Your task to perform on an android device: open app "Walmart Shopping & Grocery" (install if not already installed) Image 0: 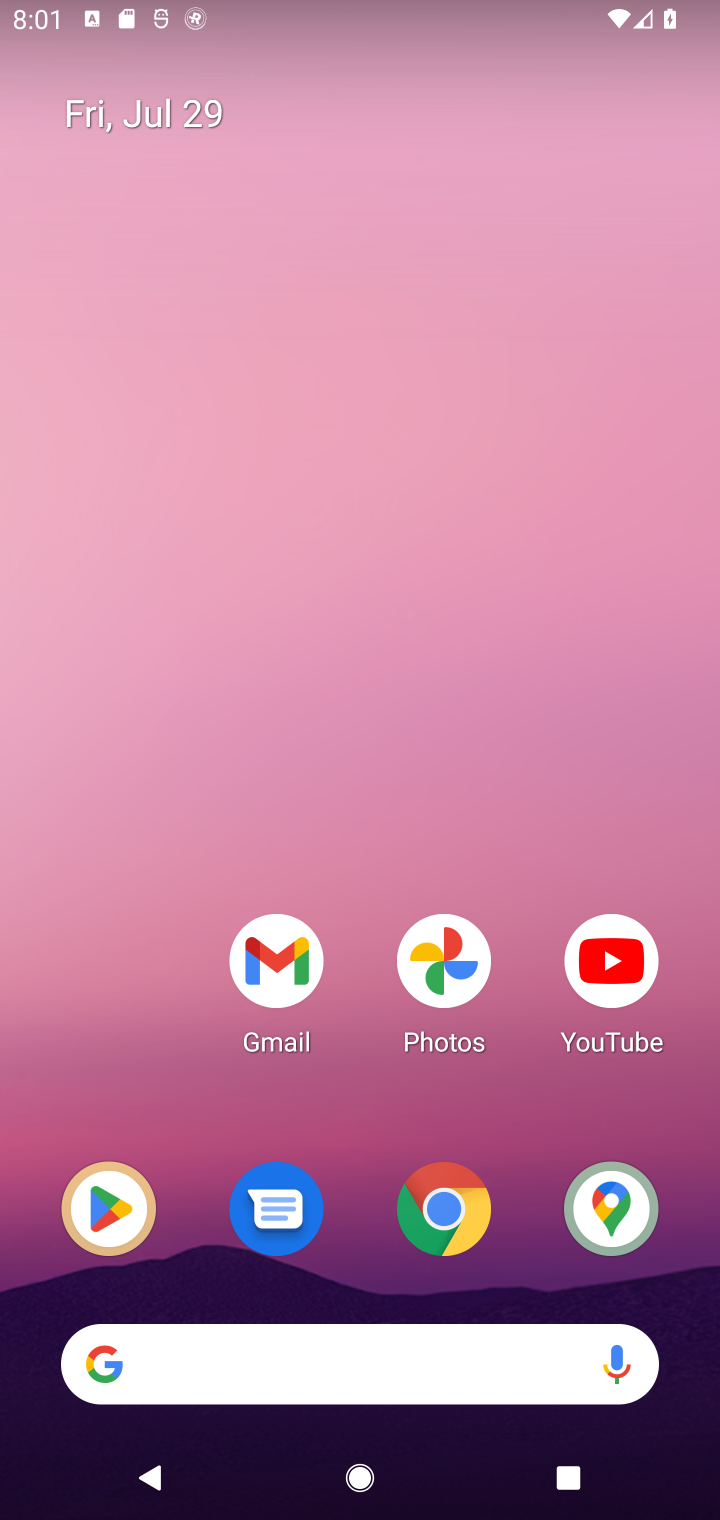
Step 0: press home button
Your task to perform on an android device: open app "Walmart Shopping & Grocery" (install if not already installed) Image 1: 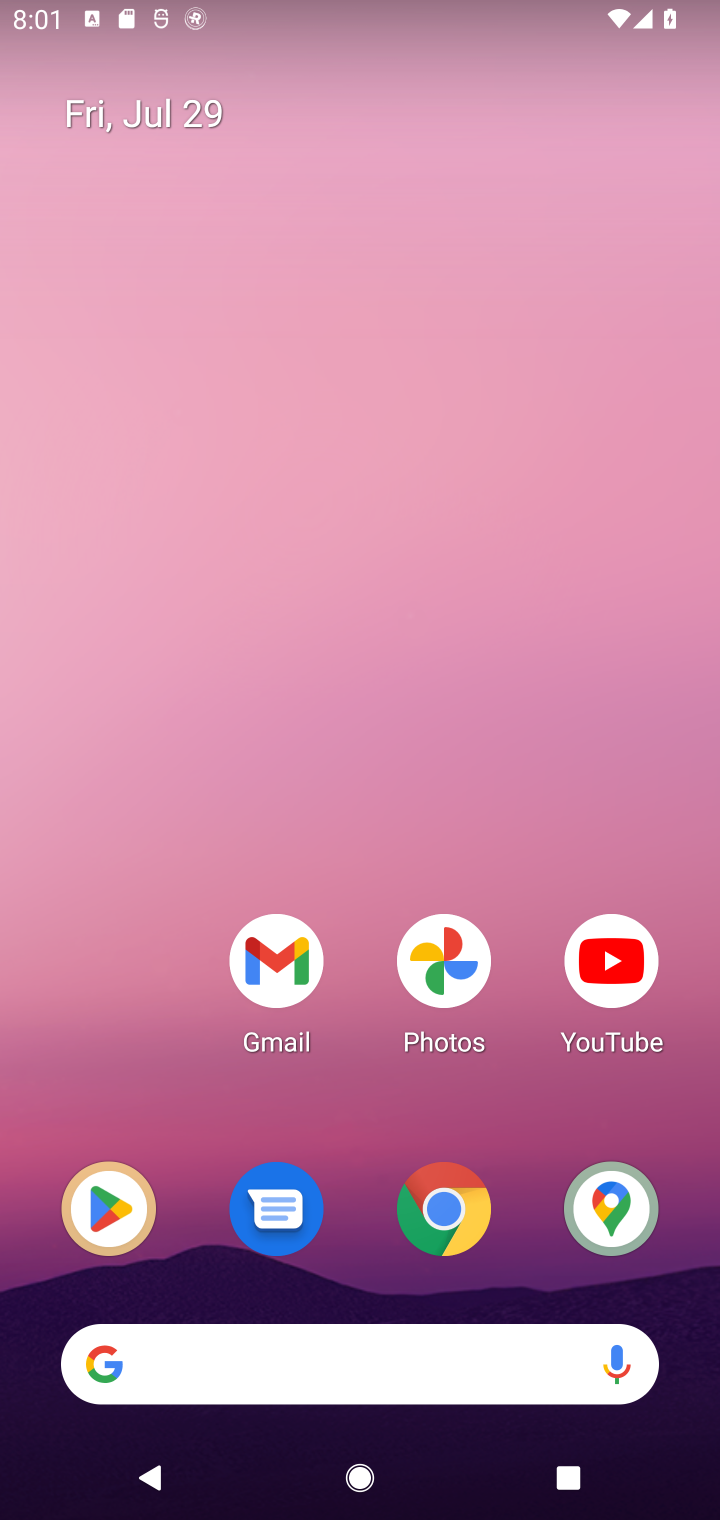
Step 1: click (116, 1221)
Your task to perform on an android device: open app "Walmart Shopping & Grocery" (install if not already installed) Image 2: 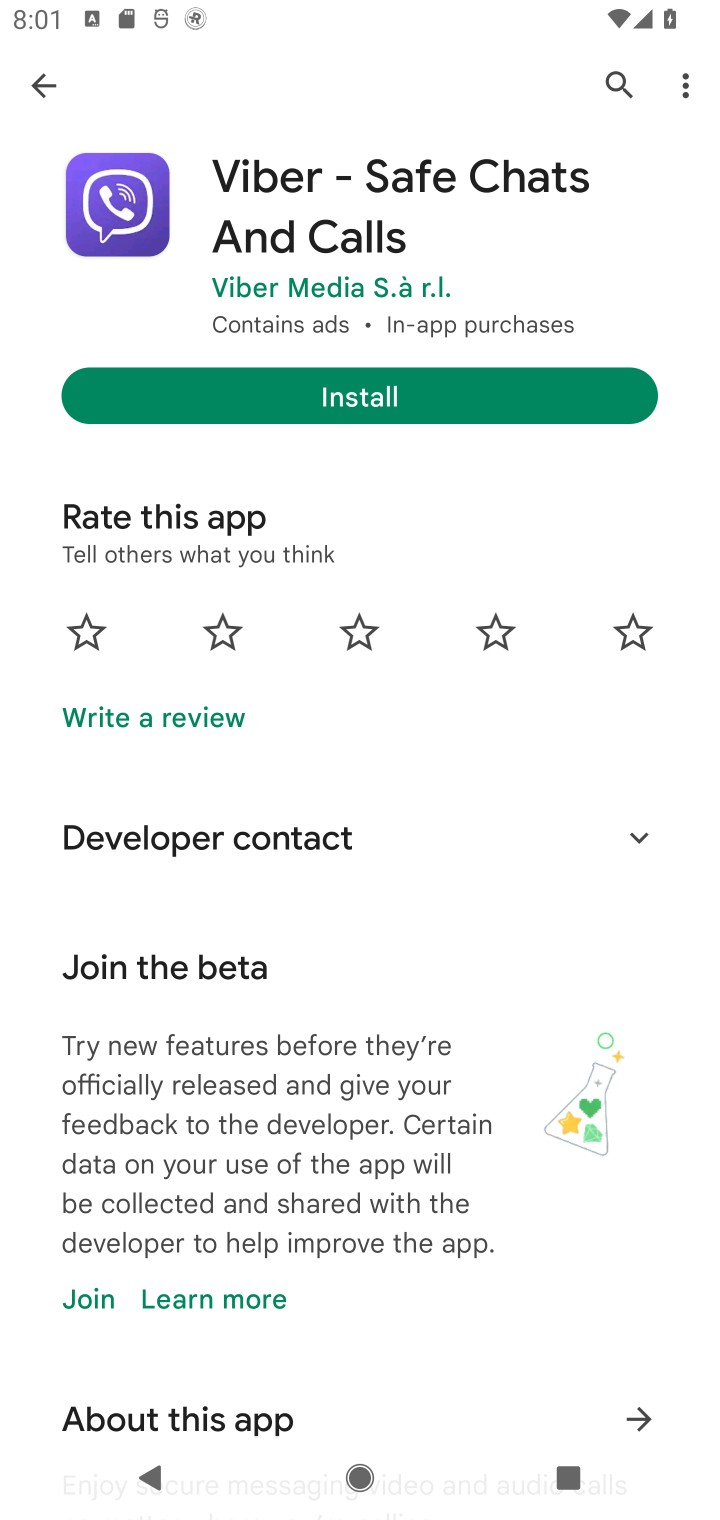
Step 2: click (619, 79)
Your task to perform on an android device: open app "Walmart Shopping & Grocery" (install if not already installed) Image 3: 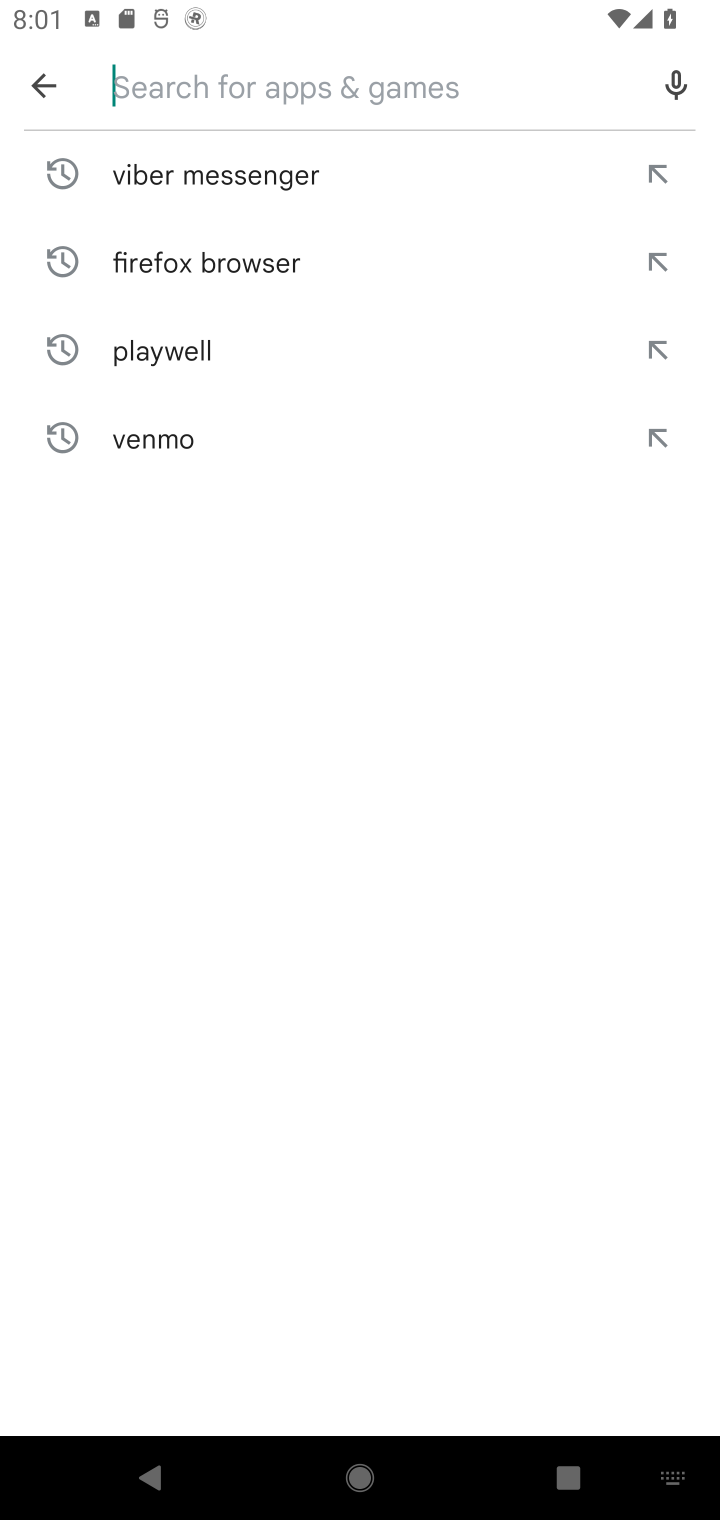
Step 3: type "Walmart Shopping & Grocery"
Your task to perform on an android device: open app "Walmart Shopping & Grocery" (install if not already installed) Image 4: 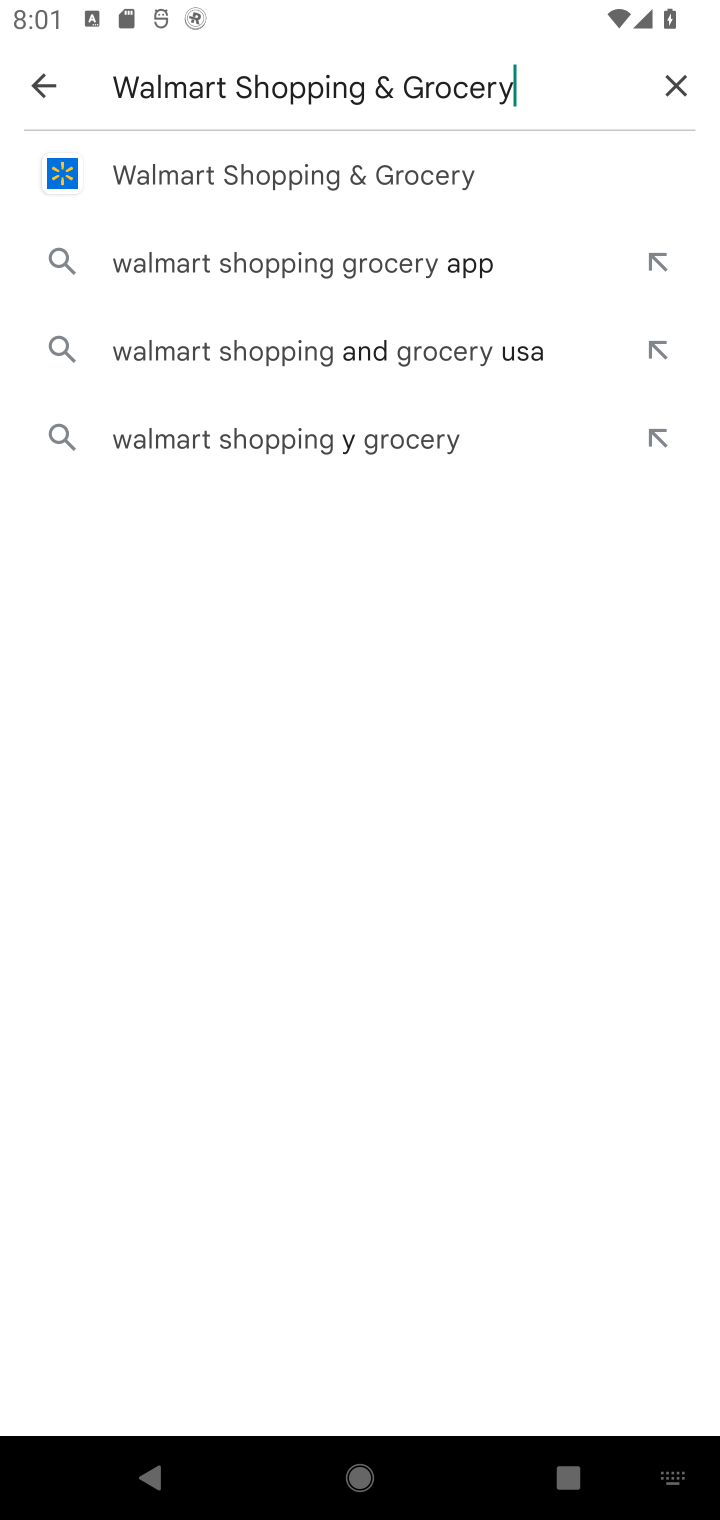
Step 4: click (333, 181)
Your task to perform on an android device: open app "Walmart Shopping & Grocery" (install if not already installed) Image 5: 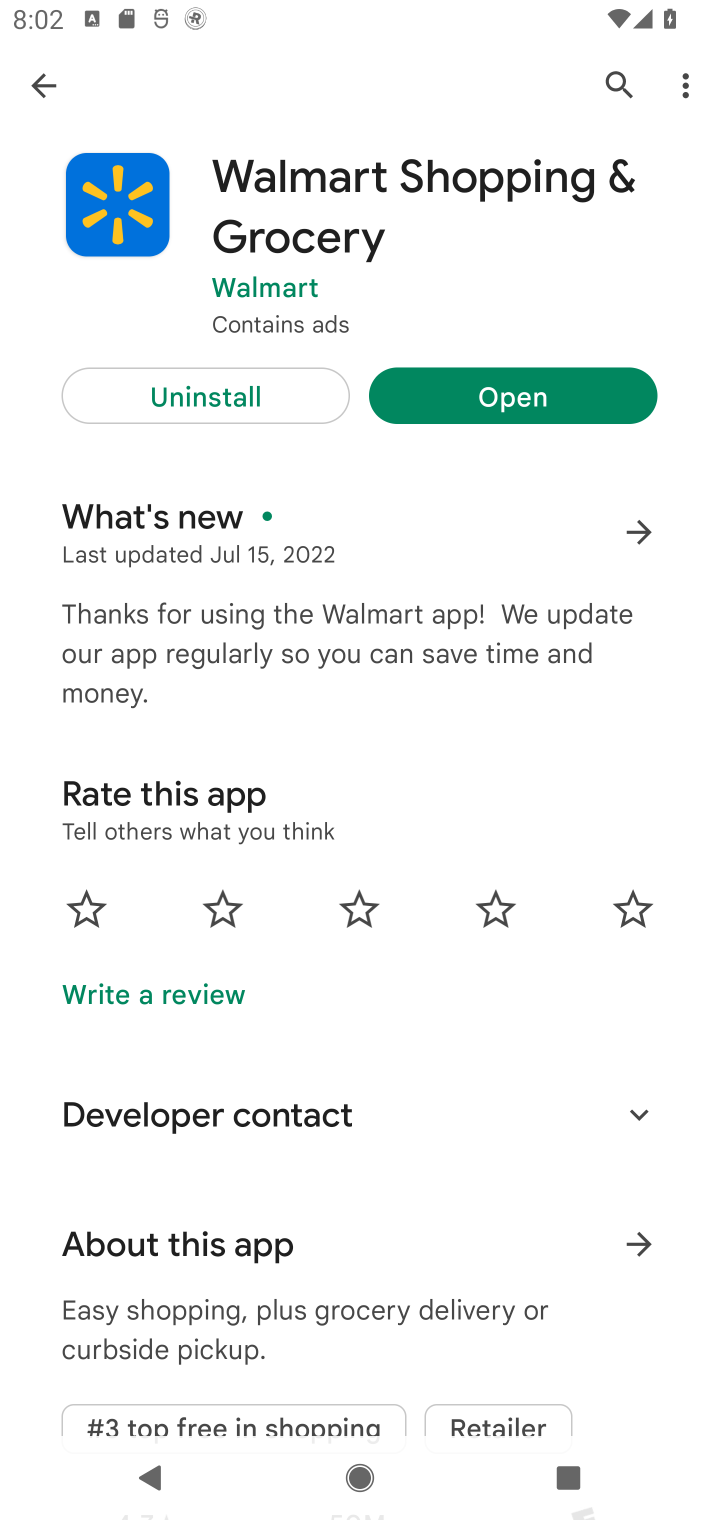
Step 5: click (446, 411)
Your task to perform on an android device: open app "Walmart Shopping & Grocery" (install if not already installed) Image 6: 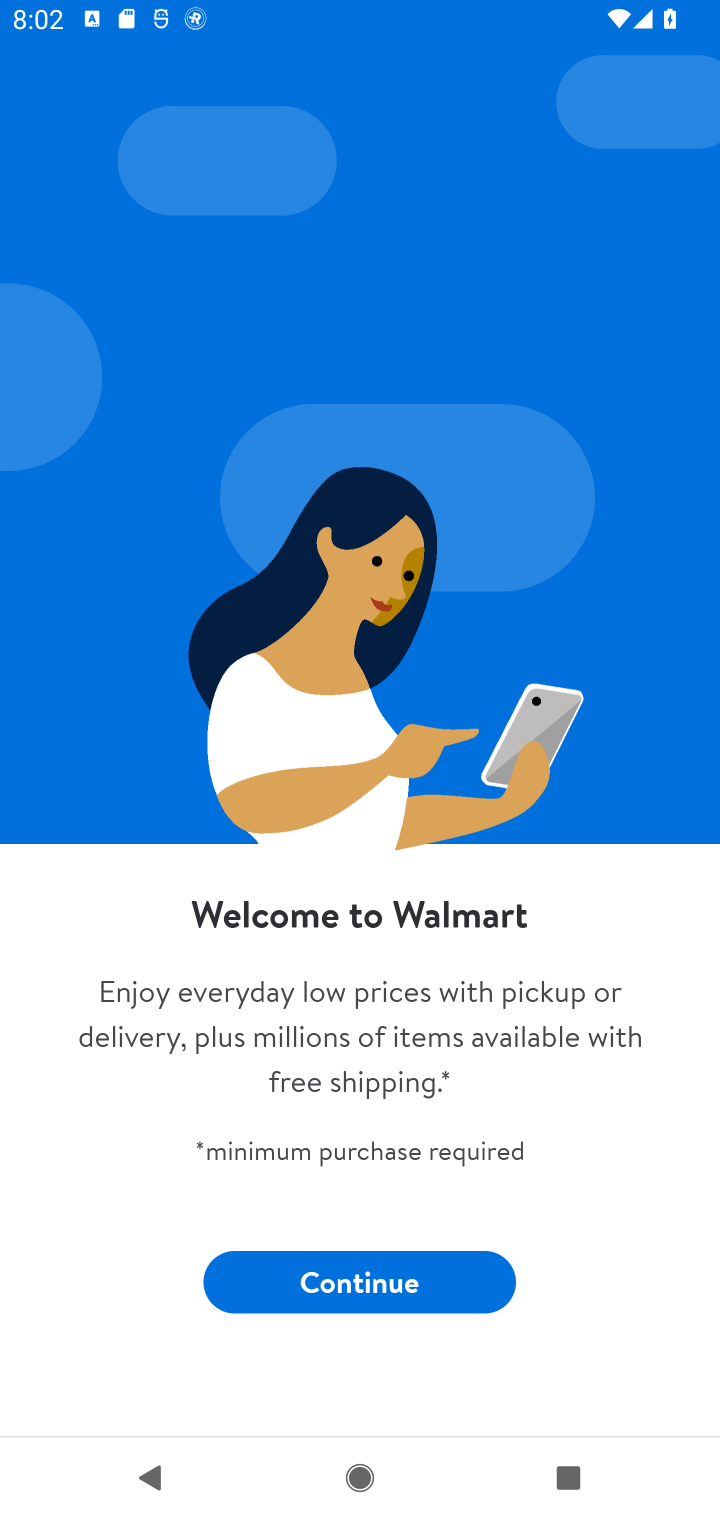
Step 6: task complete